Your task to perform on an android device: turn pop-ups on in chrome Image 0: 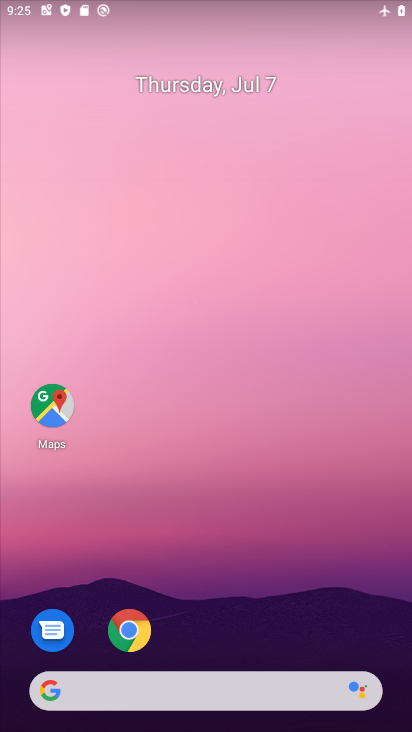
Step 0: click (153, 627)
Your task to perform on an android device: turn pop-ups on in chrome Image 1: 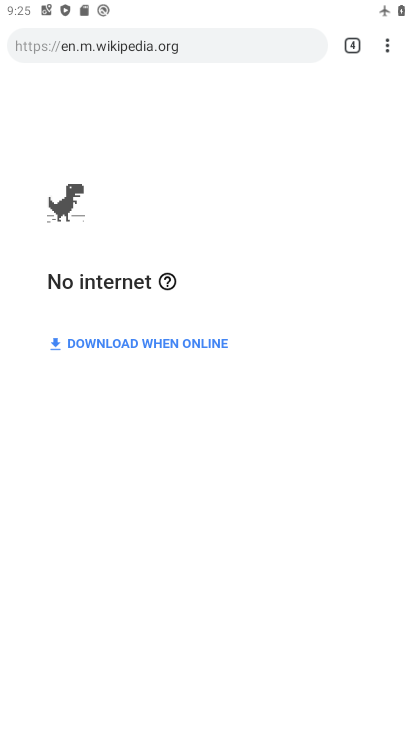
Step 1: click (390, 42)
Your task to perform on an android device: turn pop-ups on in chrome Image 2: 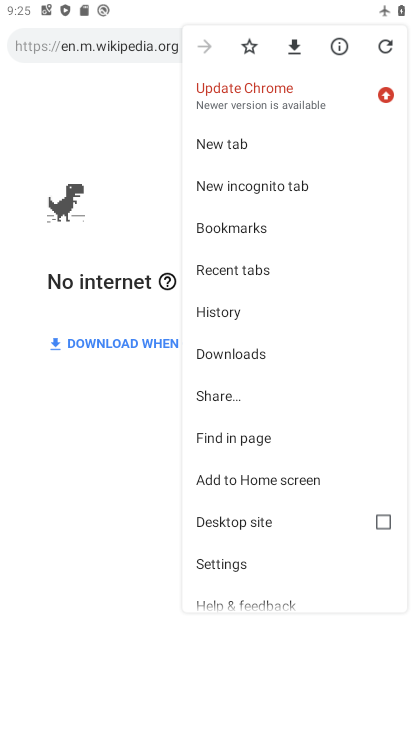
Step 2: click (252, 561)
Your task to perform on an android device: turn pop-ups on in chrome Image 3: 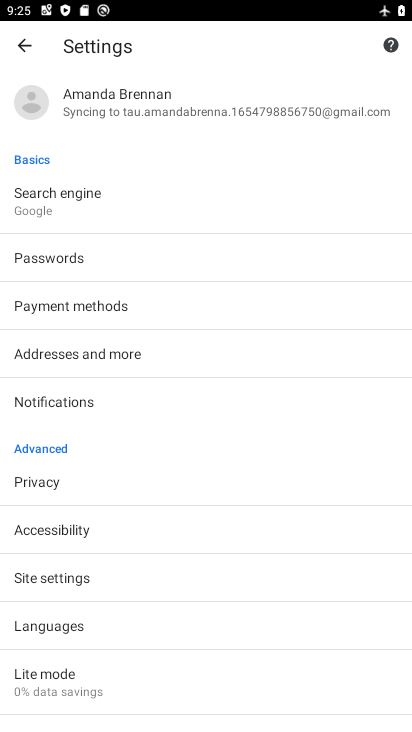
Step 3: click (111, 586)
Your task to perform on an android device: turn pop-ups on in chrome Image 4: 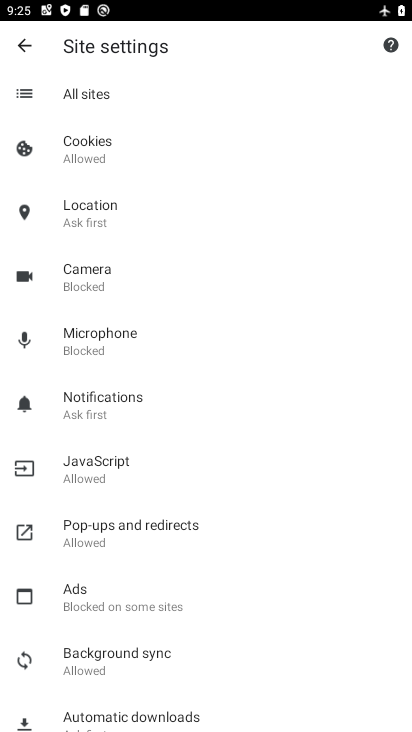
Step 4: click (146, 543)
Your task to perform on an android device: turn pop-ups on in chrome Image 5: 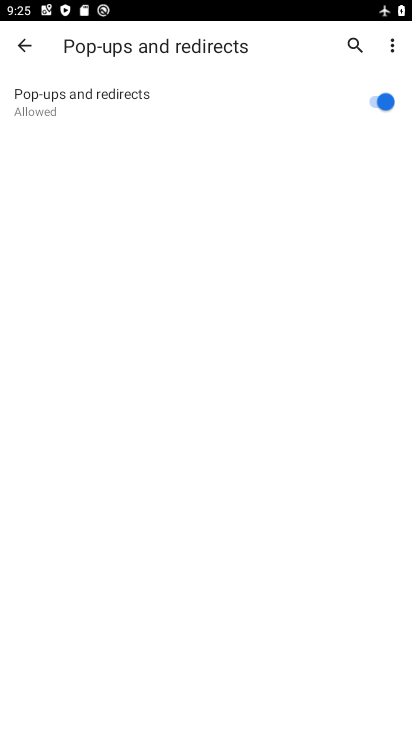
Step 5: task complete